Your task to perform on an android device: turn on priority inbox in the gmail app Image 0: 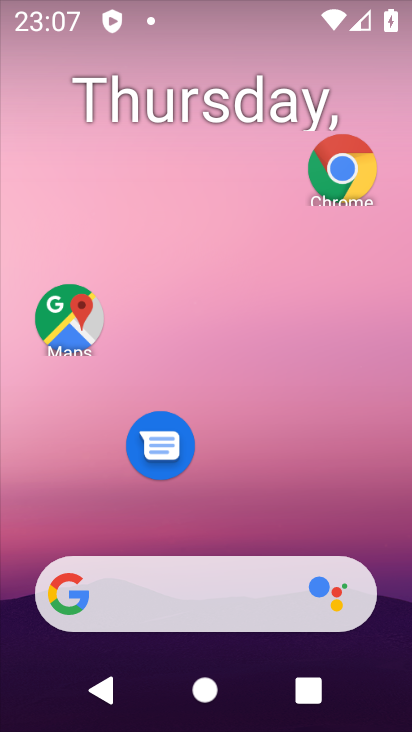
Step 0: drag from (229, 486) to (246, 187)
Your task to perform on an android device: turn on priority inbox in the gmail app Image 1: 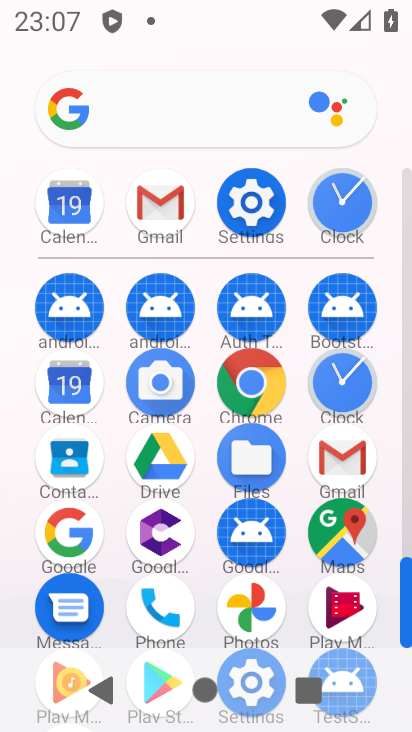
Step 1: click (348, 451)
Your task to perform on an android device: turn on priority inbox in the gmail app Image 2: 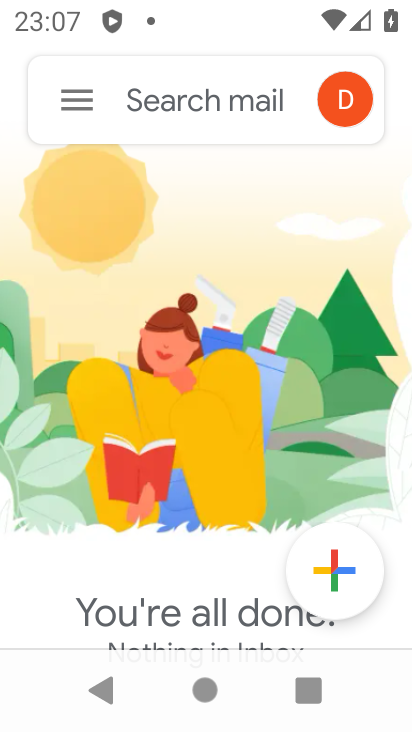
Step 2: drag from (199, 573) to (256, 215)
Your task to perform on an android device: turn on priority inbox in the gmail app Image 3: 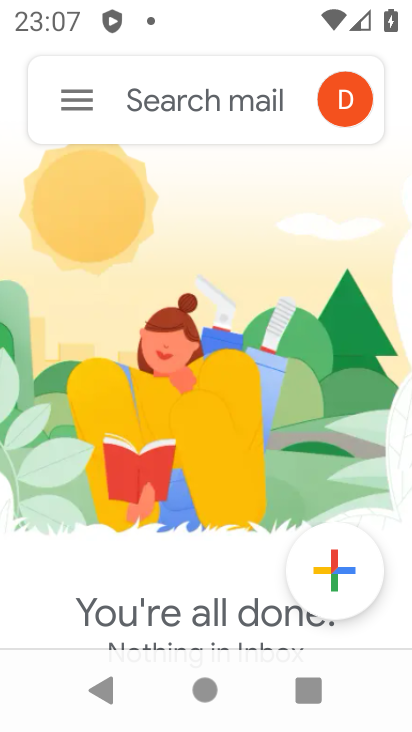
Step 3: click (65, 94)
Your task to perform on an android device: turn on priority inbox in the gmail app Image 4: 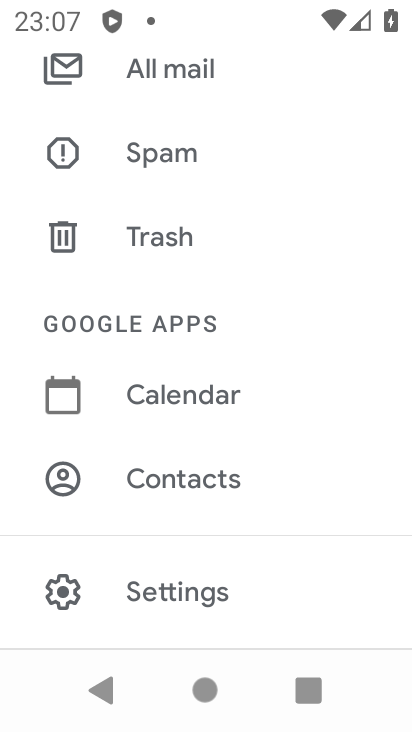
Step 4: drag from (160, 519) to (220, 117)
Your task to perform on an android device: turn on priority inbox in the gmail app Image 5: 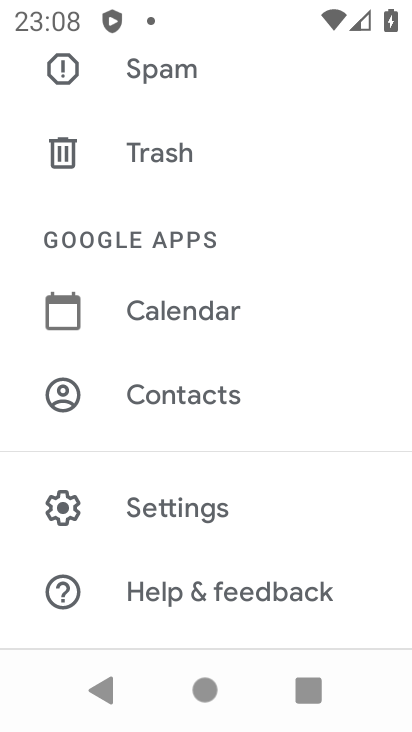
Step 5: click (186, 517)
Your task to perform on an android device: turn on priority inbox in the gmail app Image 6: 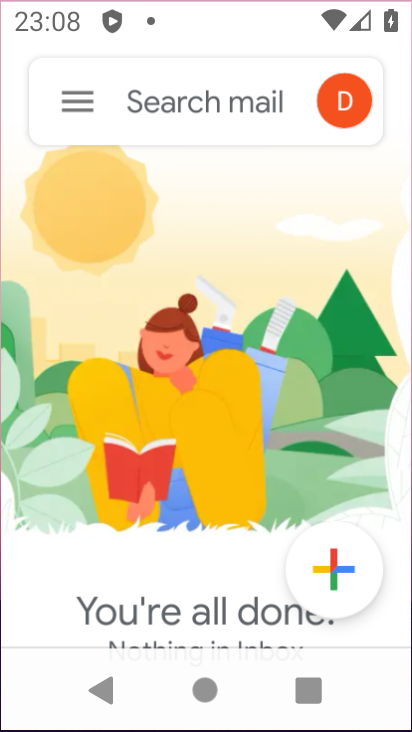
Step 6: task complete